Your task to perform on an android device: choose inbox layout in the gmail app Image 0: 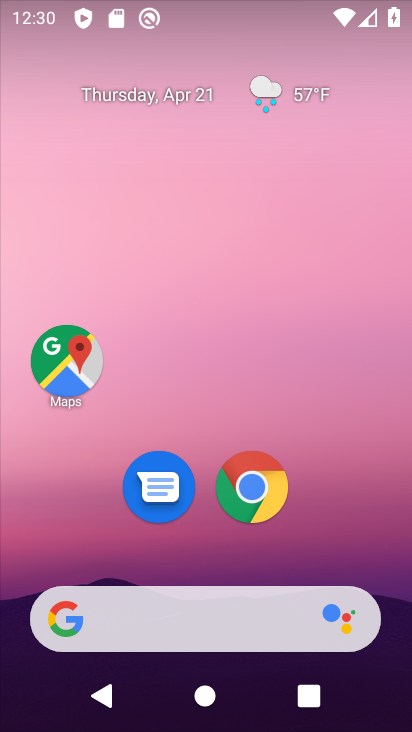
Step 0: drag from (371, 427) to (382, 145)
Your task to perform on an android device: choose inbox layout in the gmail app Image 1: 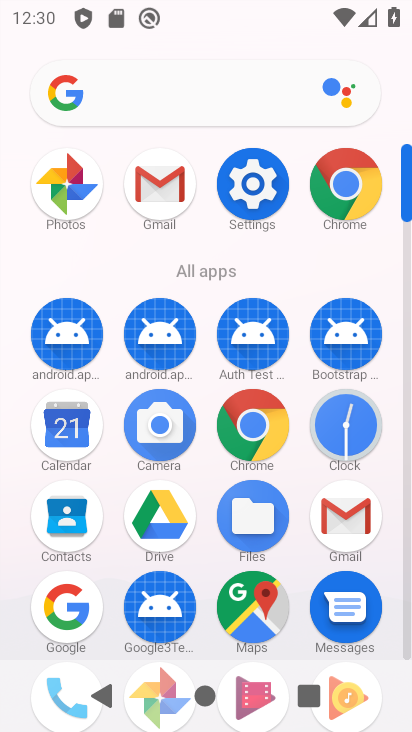
Step 1: click (361, 529)
Your task to perform on an android device: choose inbox layout in the gmail app Image 2: 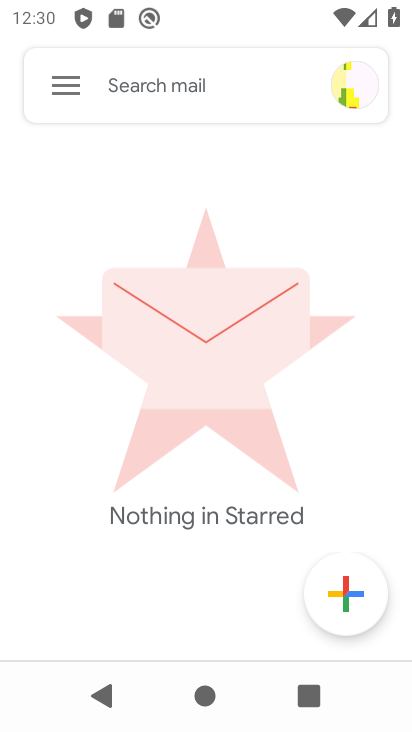
Step 2: click (49, 88)
Your task to perform on an android device: choose inbox layout in the gmail app Image 3: 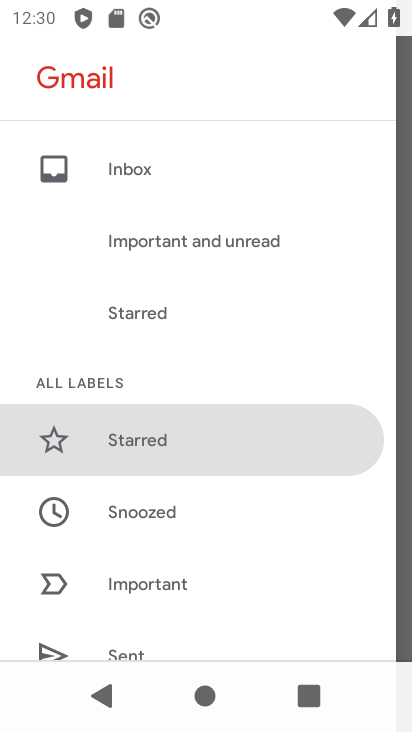
Step 3: drag from (271, 585) to (348, 314)
Your task to perform on an android device: choose inbox layout in the gmail app Image 4: 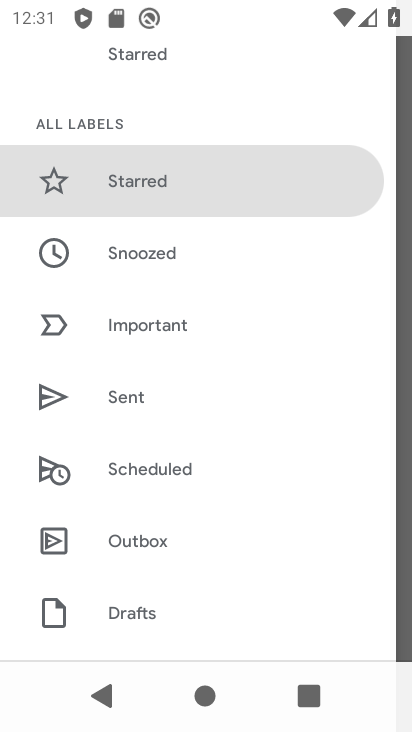
Step 4: drag from (237, 590) to (245, 285)
Your task to perform on an android device: choose inbox layout in the gmail app Image 5: 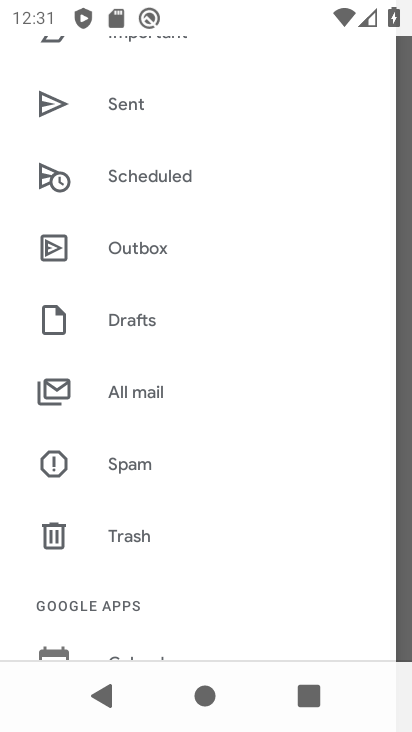
Step 5: drag from (210, 533) to (246, 331)
Your task to perform on an android device: choose inbox layout in the gmail app Image 6: 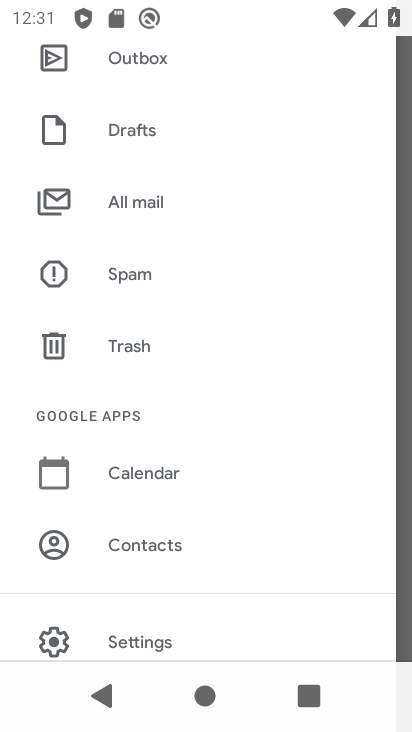
Step 6: click (132, 643)
Your task to perform on an android device: choose inbox layout in the gmail app Image 7: 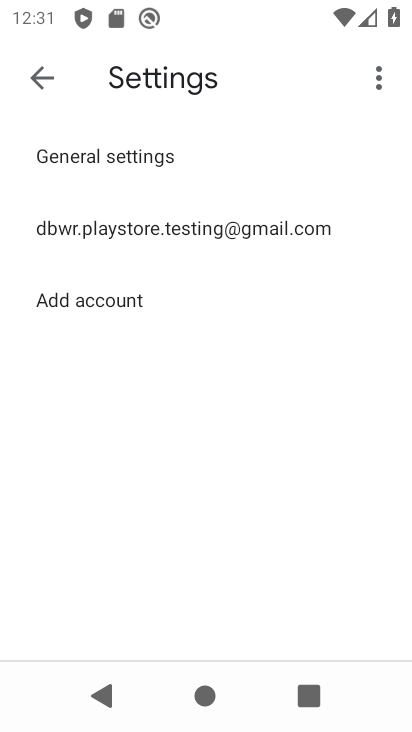
Step 7: click (177, 231)
Your task to perform on an android device: choose inbox layout in the gmail app Image 8: 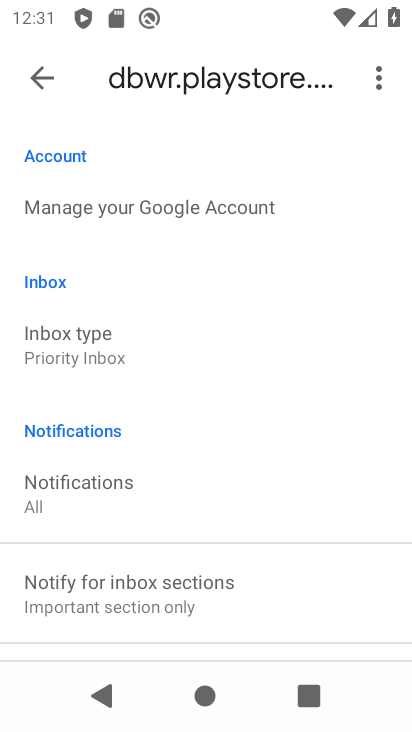
Step 8: click (88, 315)
Your task to perform on an android device: choose inbox layout in the gmail app Image 9: 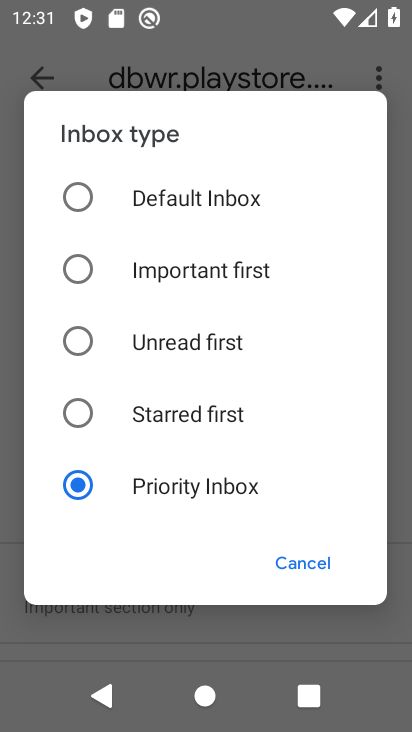
Step 9: click (82, 192)
Your task to perform on an android device: choose inbox layout in the gmail app Image 10: 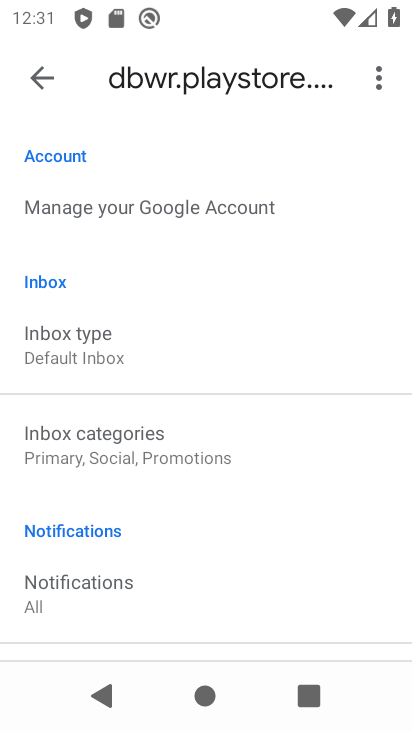
Step 10: task complete